Your task to perform on an android device: Open ESPN.com Image 0: 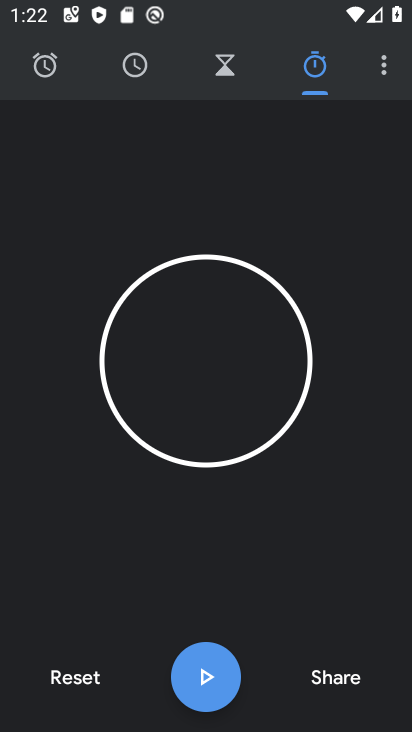
Step 0: press home button
Your task to perform on an android device: Open ESPN.com Image 1: 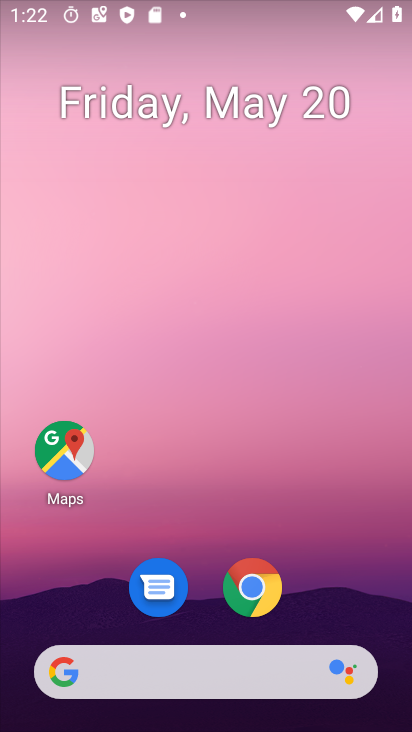
Step 1: click (264, 571)
Your task to perform on an android device: Open ESPN.com Image 2: 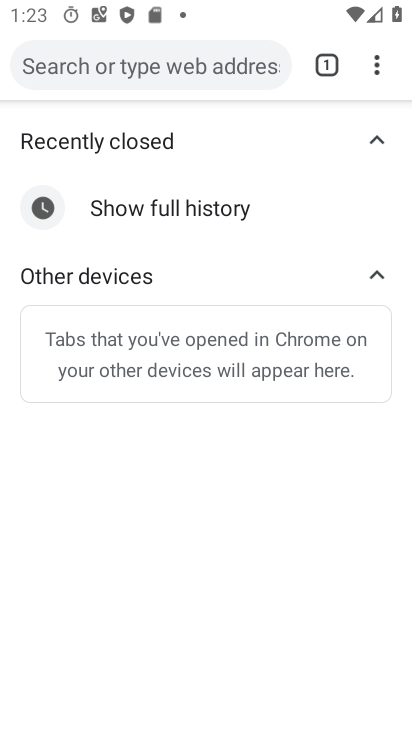
Step 2: click (193, 58)
Your task to perform on an android device: Open ESPN.com Image 3: 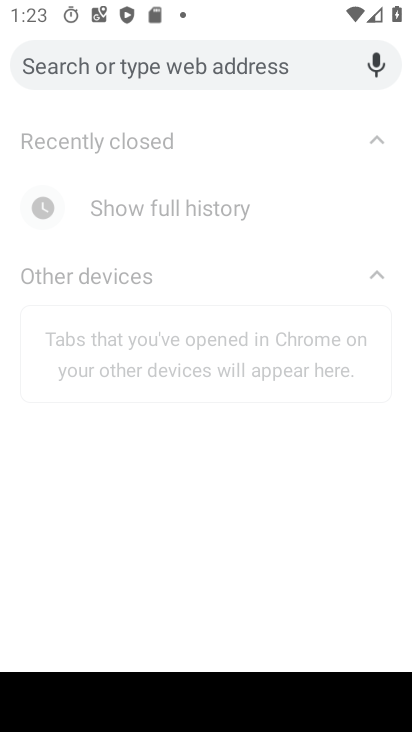
Step 3: type "espn.com"
Your task to perform on an android device: Open ESPN.com Image 4: 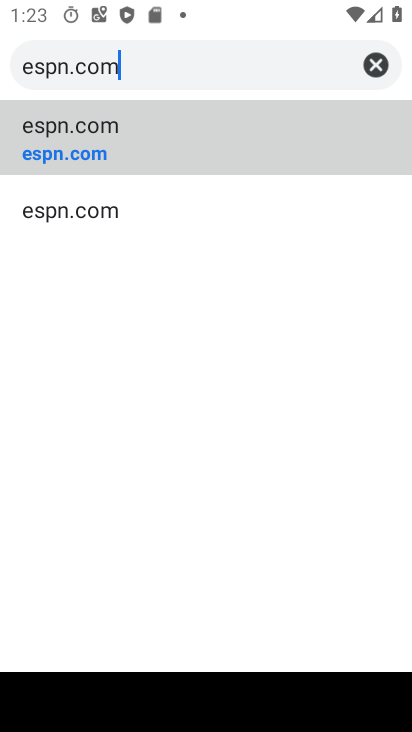
Step 4: type ""
Your task to perform on an android device: Open ESPN.com Image 5: 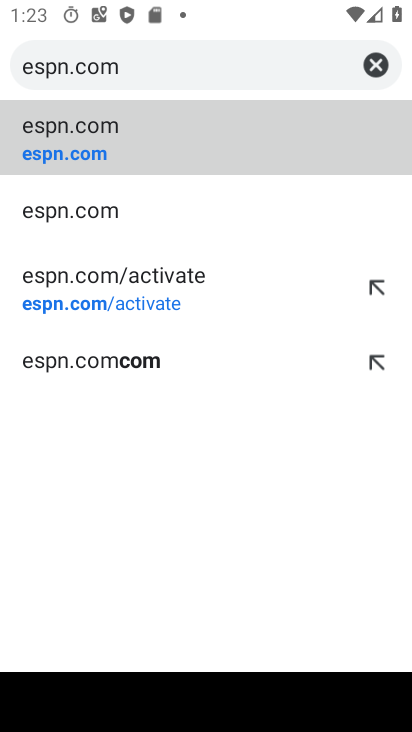
Step 5: click (85, 146)
Your task to perform on an android device: Open ESPN.com Image 6: 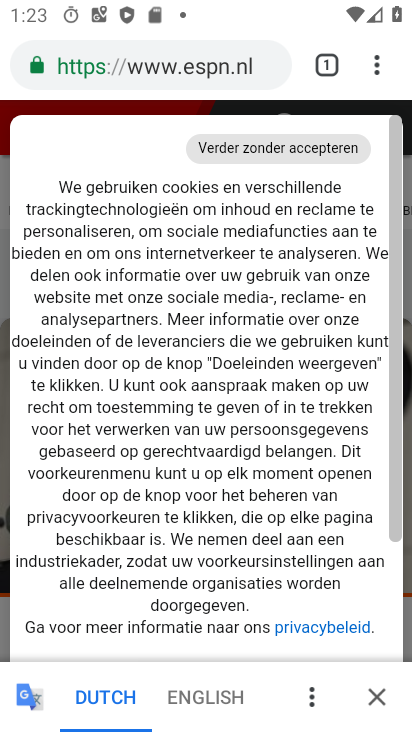
Step 6: task complete